Your task to perform on an android device: find photos in the google photos app Image 0: 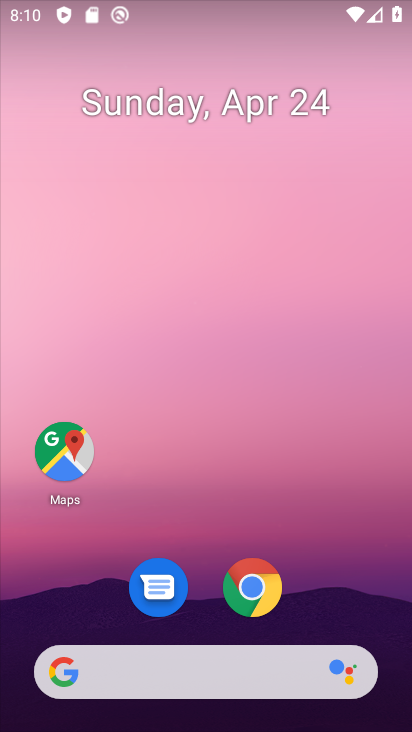
Step 0: drag from (223, 598) to (348, 44)
Your task to perform on an android device: find photos in the google photos app Image 1: 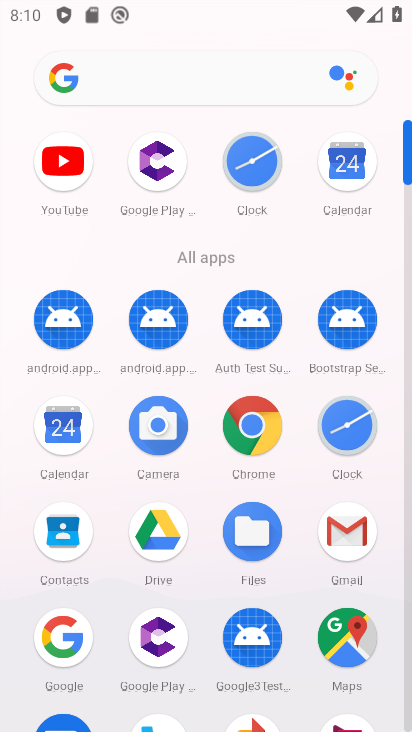
Step 1: drag from (191, 583) to (291, 139)
Your task to perform on an android device: find photos in the google photos app Image 2: 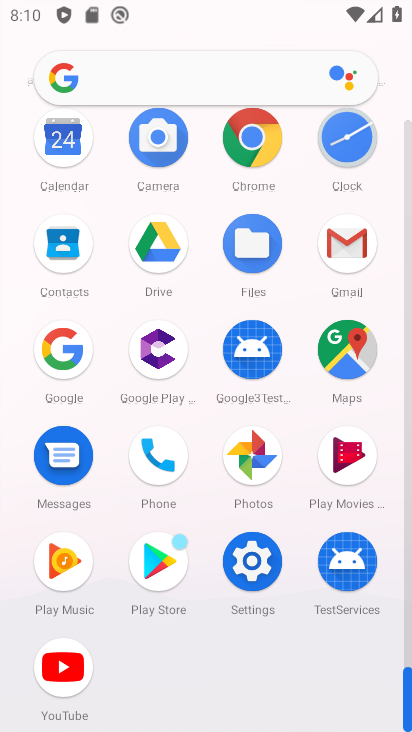
Step 2: click (249, 448)
Your task to perform on an android device: find photos in the google photos app Image 3: 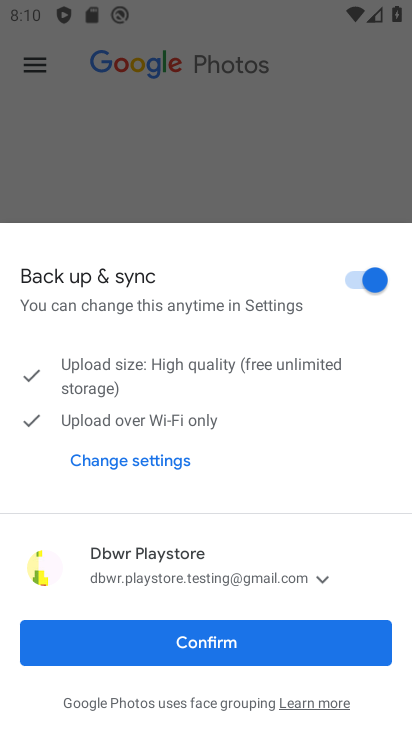
Step 3: click (204, 645)
Your task to perform on an android device: find photos in the google photos app Image 4: 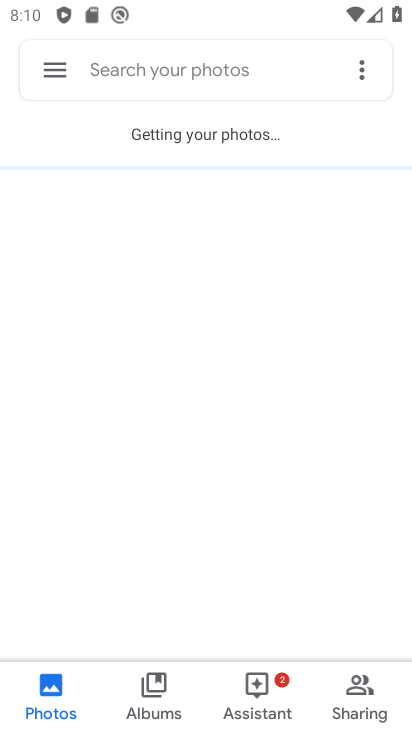
Step 4: click (59, 695)
Your task to perform on an android device: find photos in the google photos app Image 5: 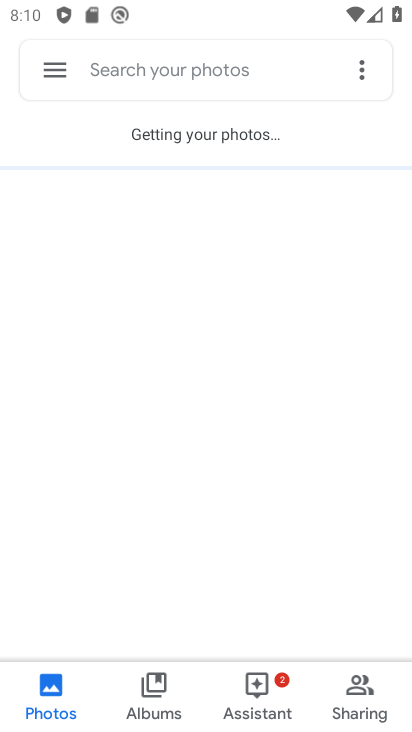
Step 5: task complete